Your task to perform on an android device: change the clock display to analog Image 0: 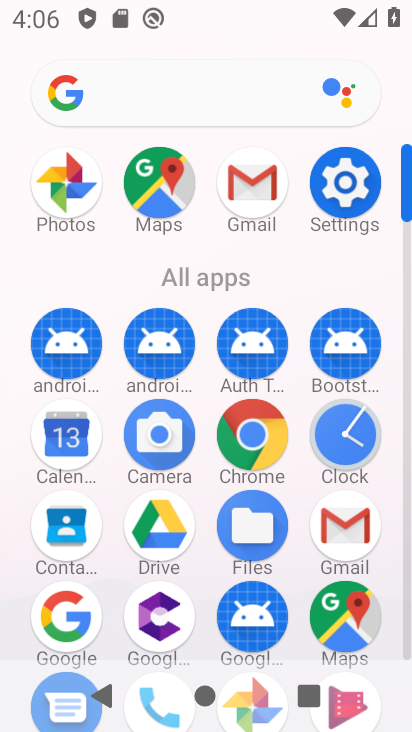
Step 0: click (350, 434)
Your task to perform on an android device: change the clock display to analog Image 1: 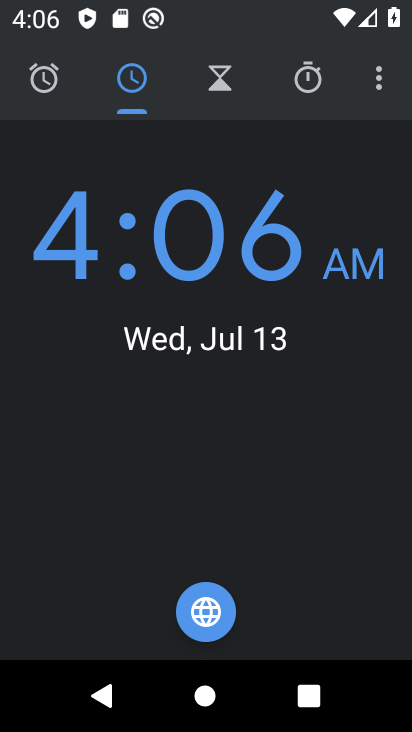
Step 1: click (381, 83)
Your task to perform on an android device: change the clock display to analog Image 2: 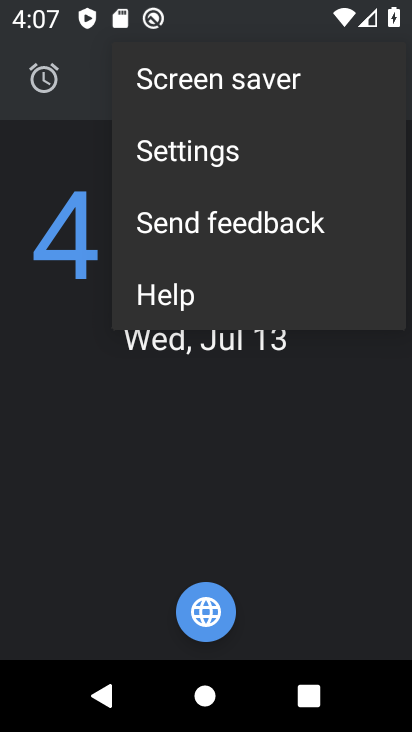
Step 2: click (202, 174)
Your task to perform on an android device: change the clock display to analog Image 3: 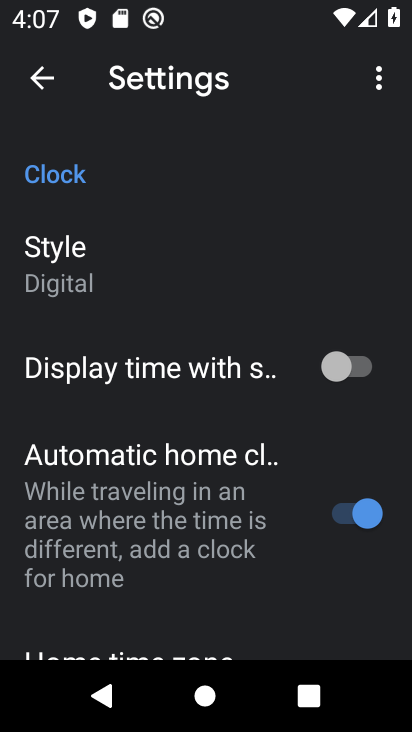
Step 3: click (81, 254)
Your task to perform on an android device: change the clock display to analog Image 4: 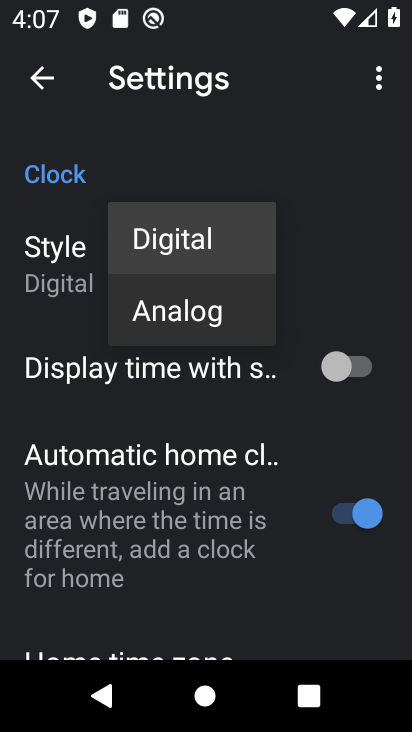
Step 4: click (186, 308)
Your task to perform on an android device: change the clock display to analog Image 5: 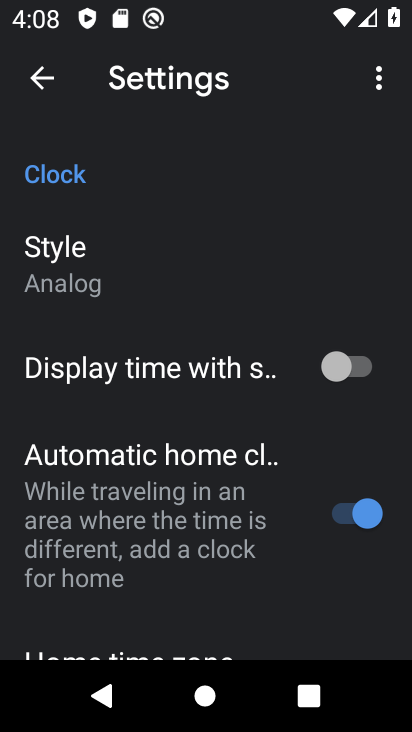
Step 5: task complete